Your task to perform on an android device: Open the map Image 0: 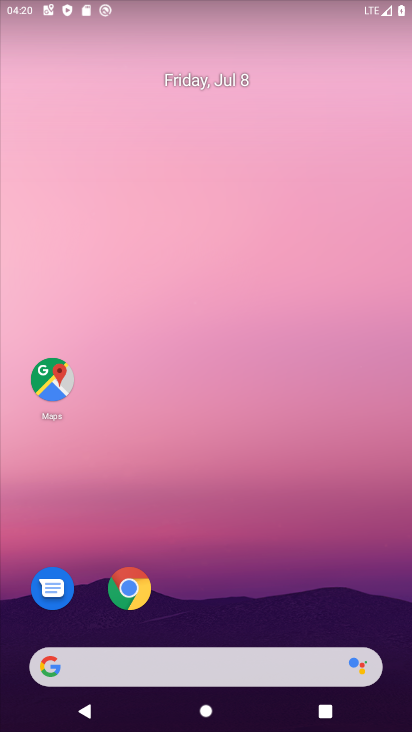
Step 0: click (45, 396)
Your task to perform on an android device: Open the map Image 1: 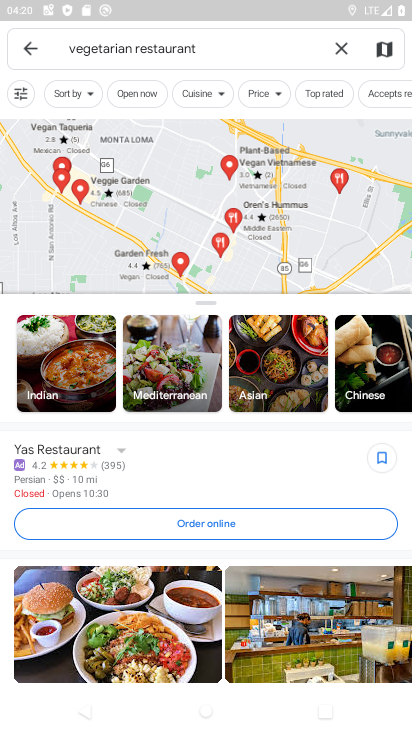
Step 1: task complete